Your task to perform on an android device: turn on airplane mode Image 0: 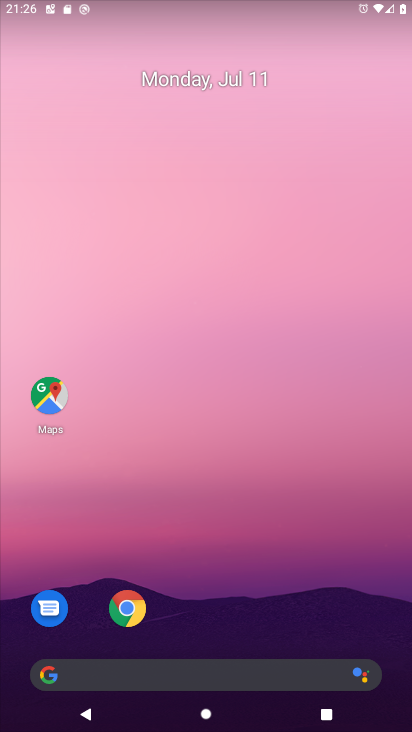
Step 0: click (239, 619)
Your task to perform on an android device: turn on airplane mode Image 1: 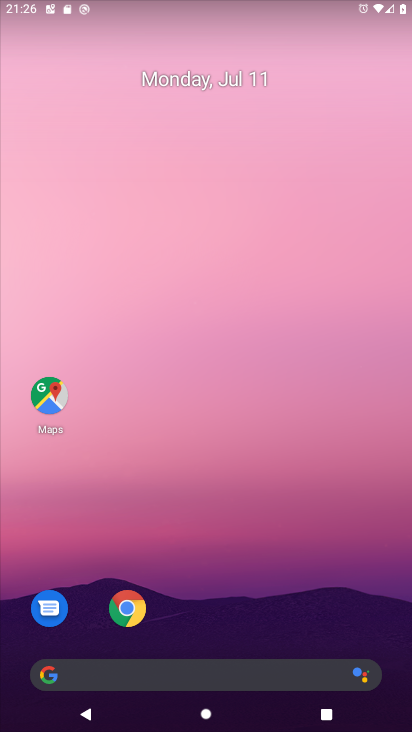
Step 1: drag from (239, 619) to (233, 307)
Your task to perform on an android device: turn on airplane mode Image 2: 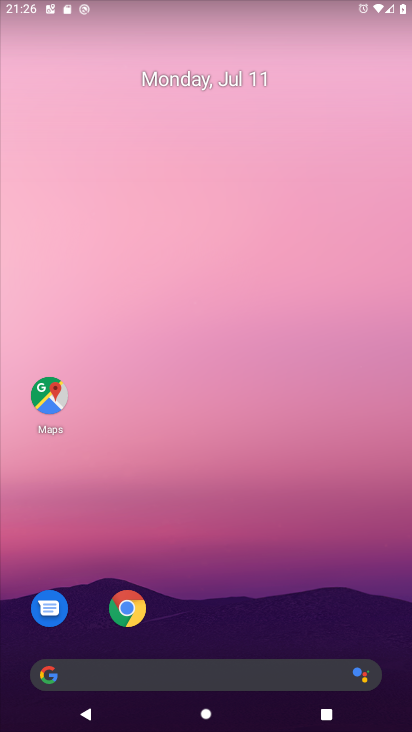
Step 2: drag from (225, 618) to (253, 311)
Your task to perform on an android device: turn on airplane mode Image 3: 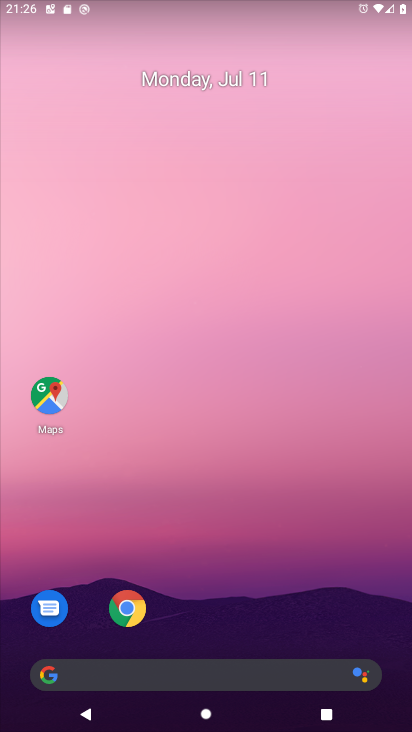
Step 3: drag from (252, 576) to (195, 76)
Your task to perform on an android device: turn on airplane mode Image 4: 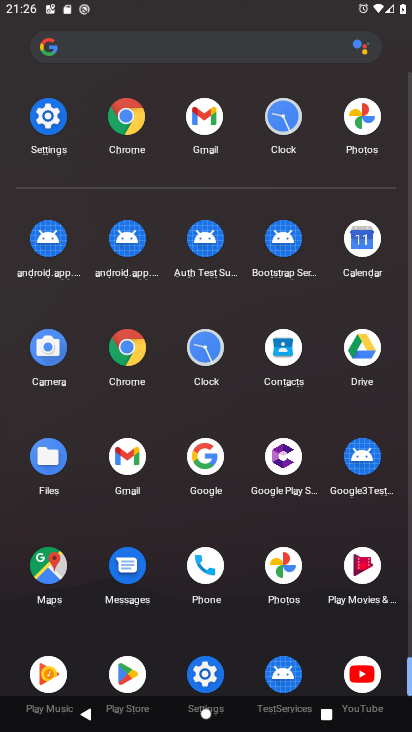
Step 4: click (55, 120)
Your task to perform on an android device: turn on airplane mode Image 5: 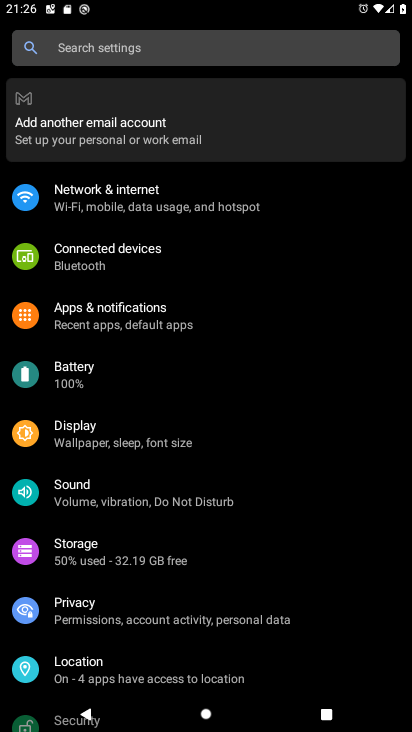
Step 5: click (98, 204)
Your task to perform on an android device: turn on airplane mode Image 6: 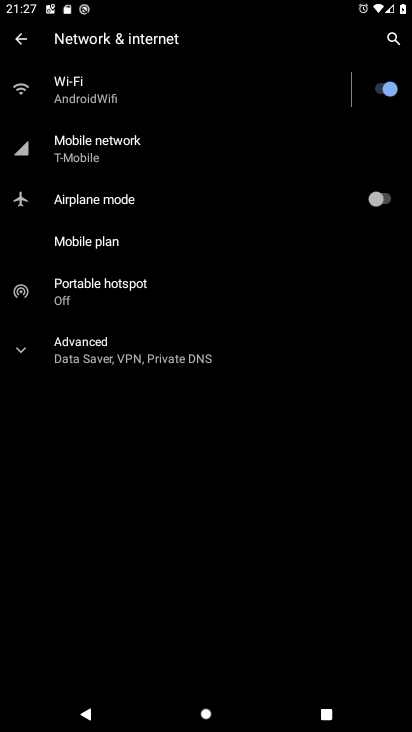
Step 6: task complete